Your task to perform on an android device: Open Youtube and go to the subscriptions tab Image 0: 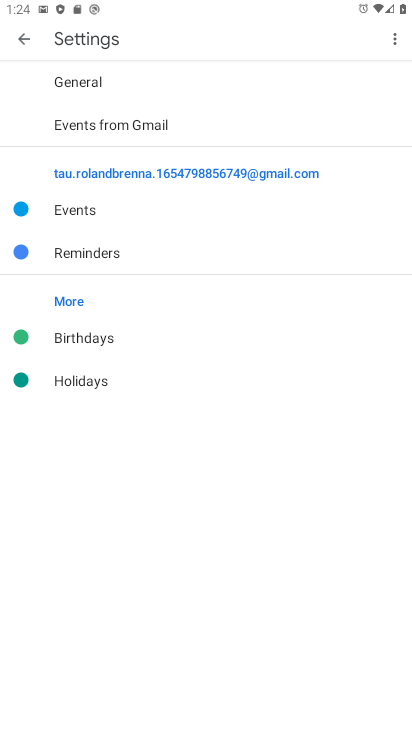
Step 0: press home button
Your task to perform on an android device: Open Youtube and go to the subscriptions tab Image 1: 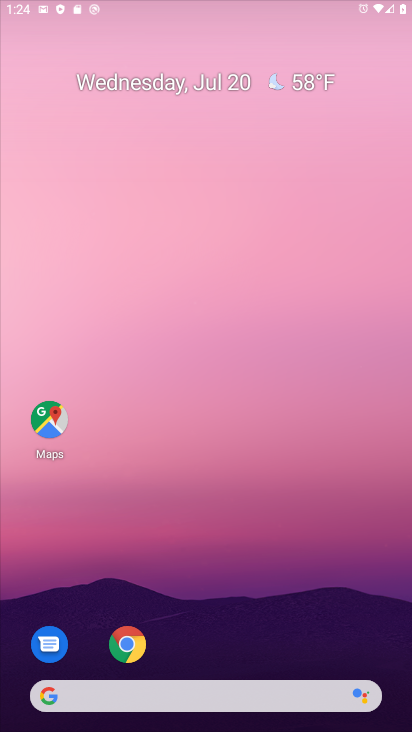
Step 1: drag from (202, 466) to (230, 68)
Your task to perform on an android device: Open Youtube and go to the subscriptions tab Image 2: 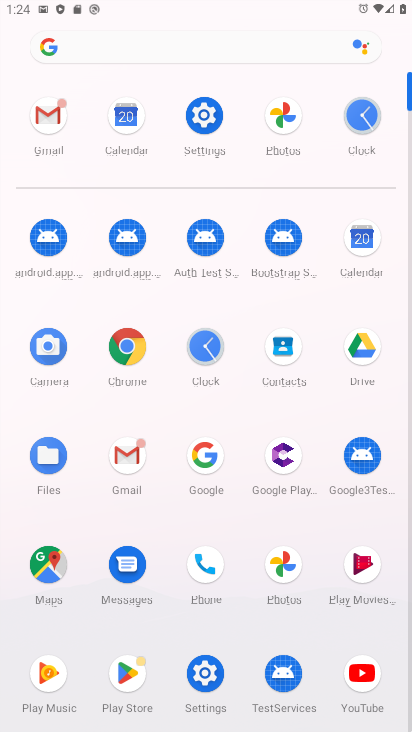
Step 2: click (365, 674)
Your task to perform on an android device: Open Youtube and go to the subscriptions tab Image 3: 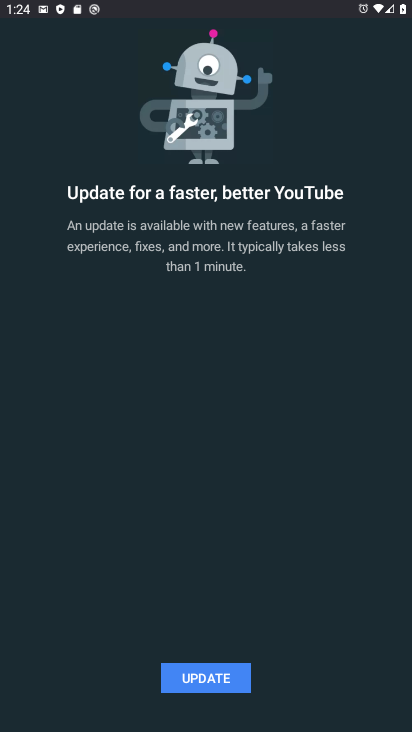
Step 3: click (223, 671)
Your task to perform on an android device: Open Youtube and go to the subscriptions tab Image 4: 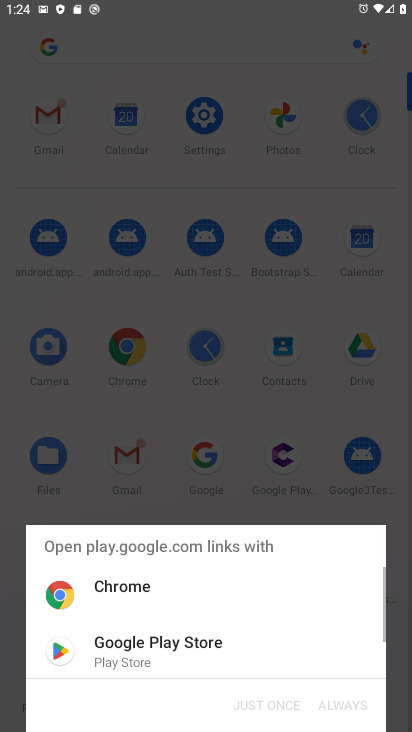
Step 4: click (137, 662)
Your task to perform on an android device: Open Youtube and go to the subscriptions tab Image 5: 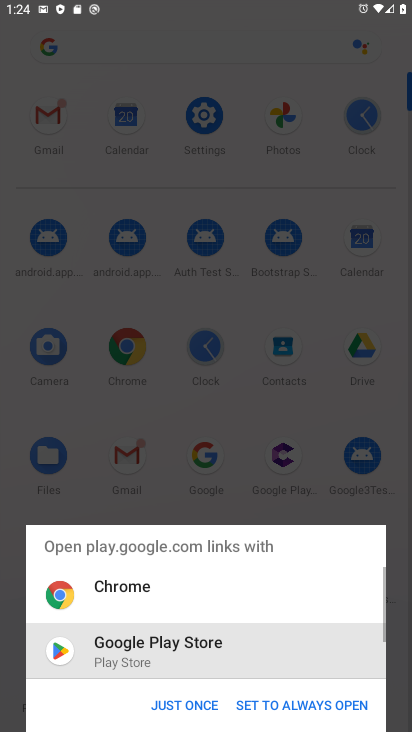
Step 5: click (192, 702)
Your task to perform on an android device: Open Youtube and go to the subscriptions tab Image 6: 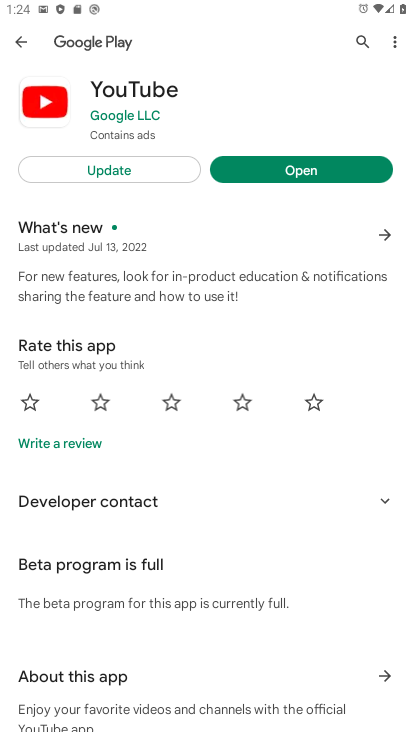
Step 6: click (126, 165)
Your task to perform on an android device: Open Youtube and go to the subscriptions tab Image 7: 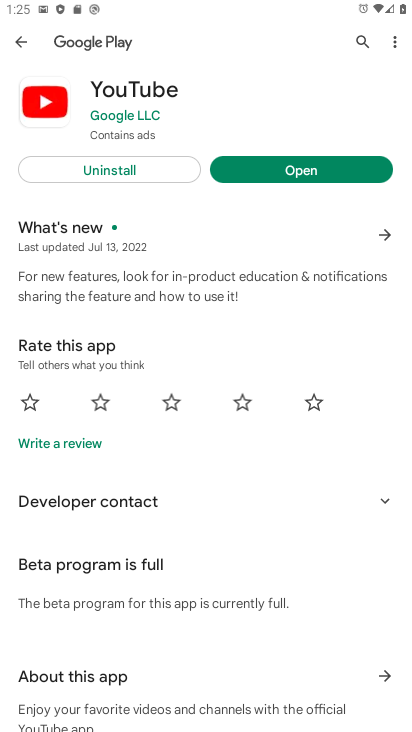
Step 7: click (311, 176)
Your task to perform on an android device: Open Youtube and go to the subscriptions tab Image 8: 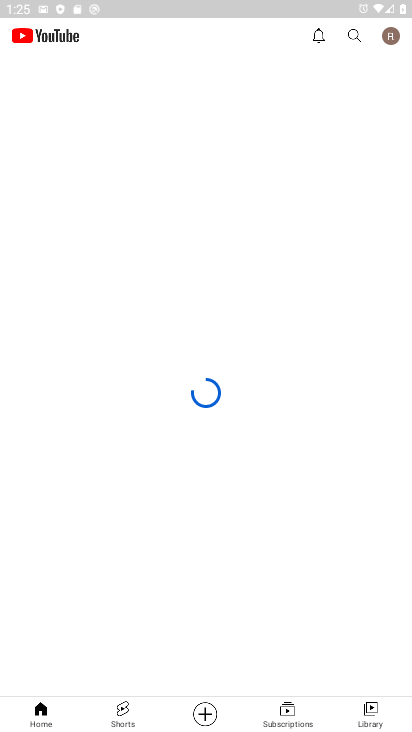
Step 8: click (284, 708)
Your task to perform on an android device: Open Youtube and go to the subscriptions tab Image 9: 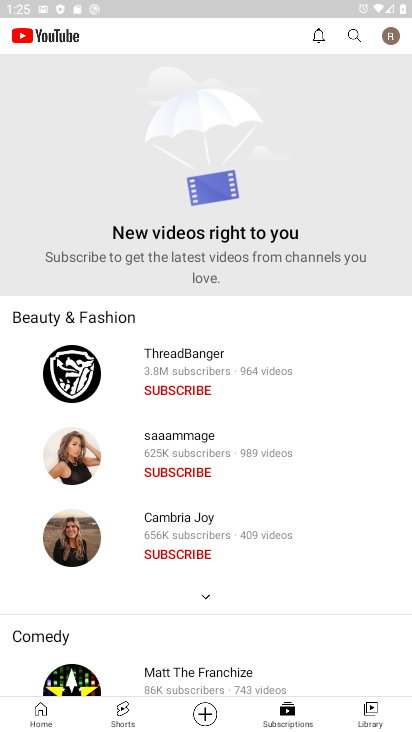
Step 9: task complete